Your task to perform on an android device: Open Google Image 0: 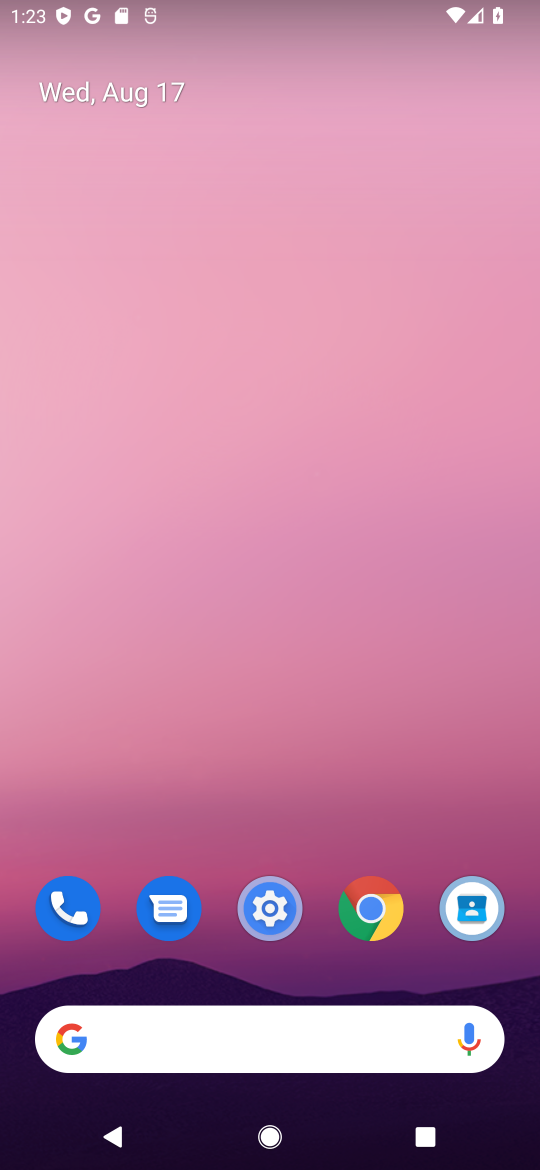
Step 0: press home button
Your task to perform on an android device: Open Google Image 1: 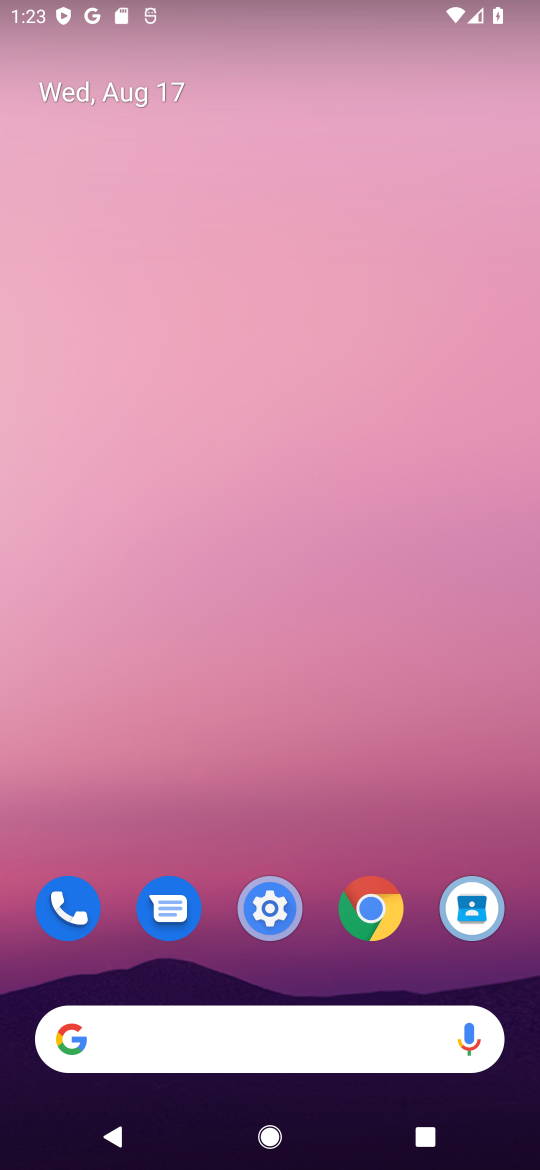
Step 1: drag from (290, 990) to (279, 101)
Your task to perform on an android device: Open Google Image 2: 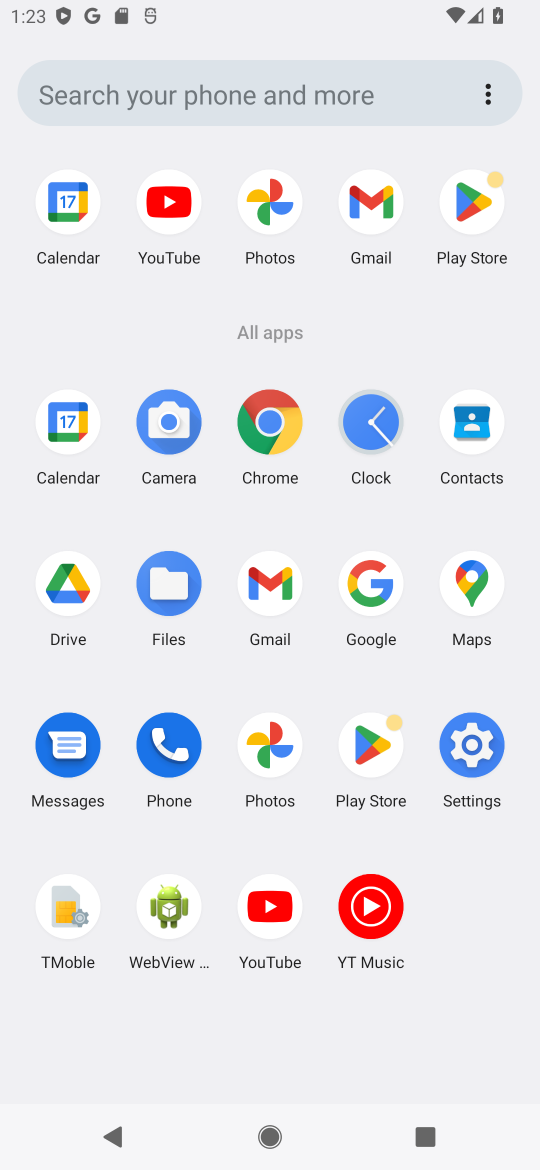
Step 2: click (368, 598)
Your task to perform on an android device: Open Google Image 3: 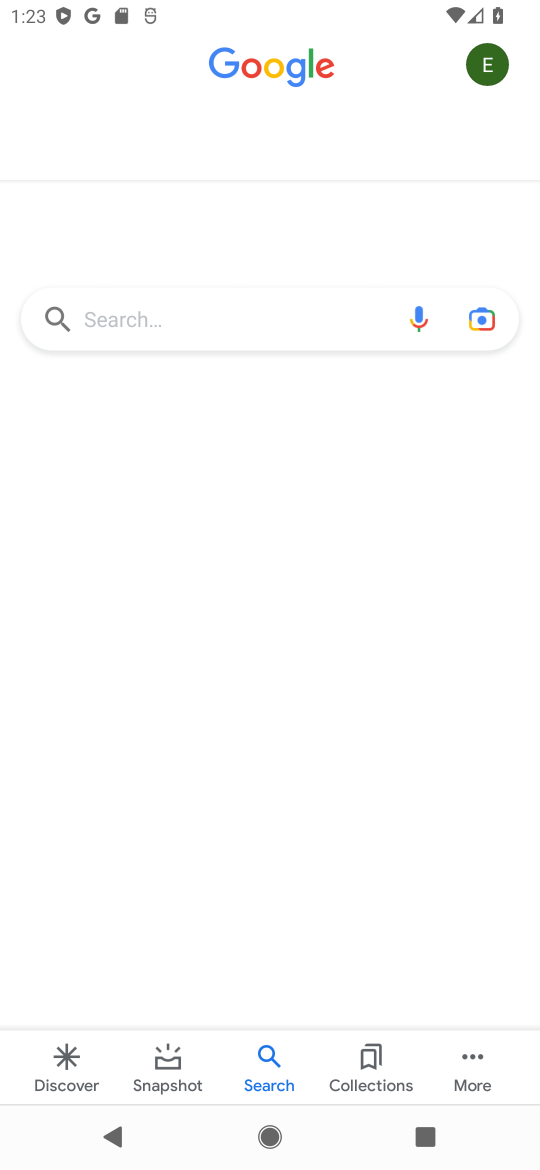
Step 3: task complete